Your task to perform on an android device: turn off airplane mode Image 0: 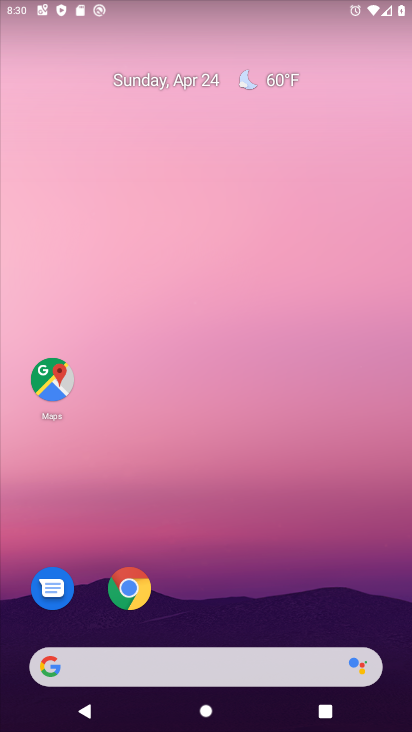
Step 0: drag from (240, 572) to (306, 124)
Your task to perform on an android device: turn off airplane mode Image 1: 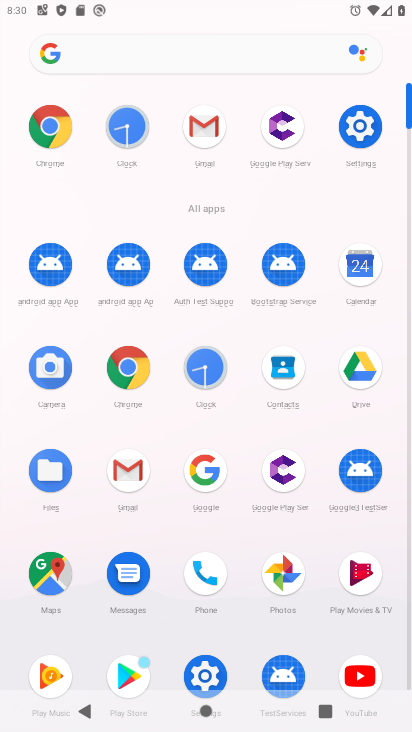
Step 1: click (358, 127)
Your task to perform on an android device: turn off airplane mode Image 2: 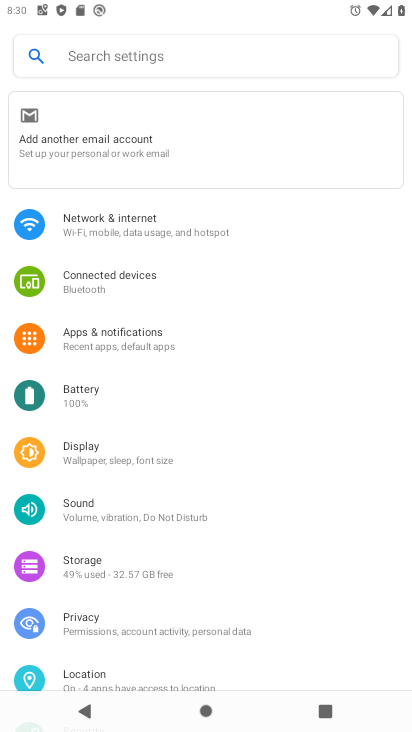
Step 2: click (205, 231)
Your task to perform on an android device: turn off airplane mode Image 3: 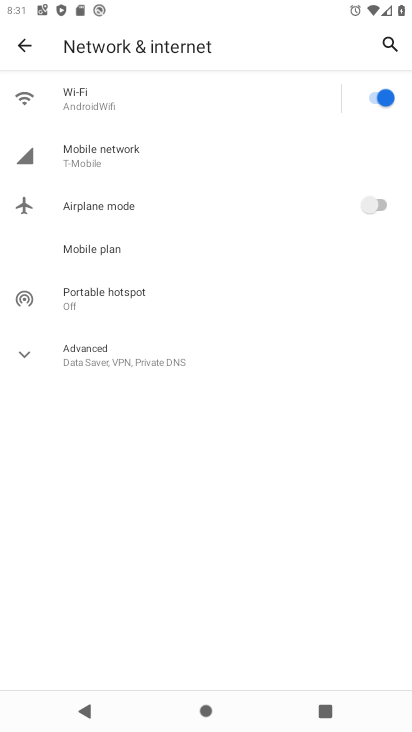
Step 3: task complete